Your task to perform on an android device: open a bookmark in the chrome app Image 0: 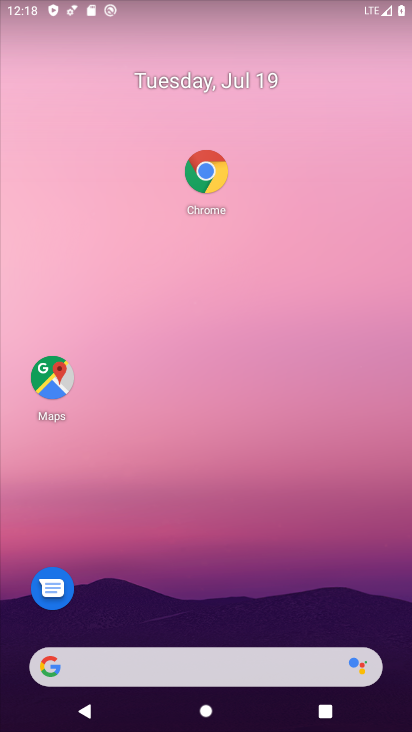
Step 0: click (210, 166)
Your task to perform on an android device: open a bookmark in the chrome app Image 1: 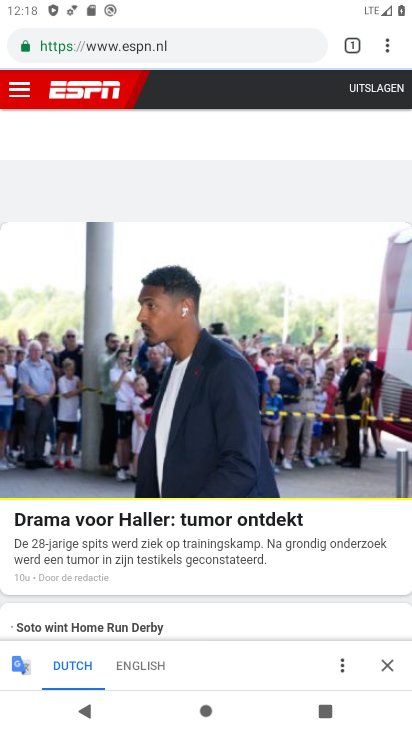
Step 1: click (395, 43)
Your task to perform on an android device: open a bookmark in the chrome app Image 2: 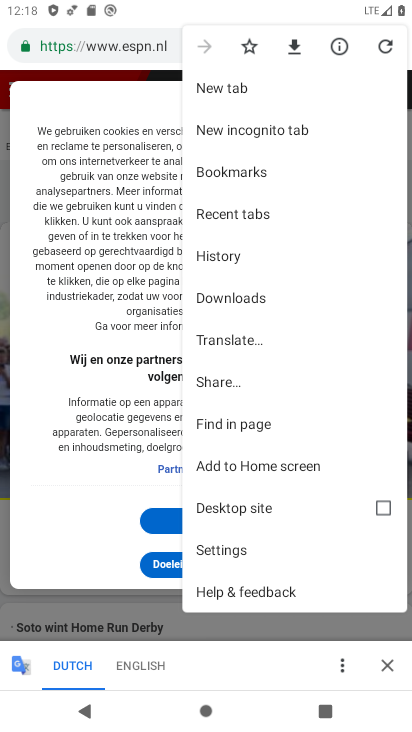
Step 2: drag from (239, 576) to (263, 330)
Your task to perform on an android device: open a bookmark in the chrome app Image 3: 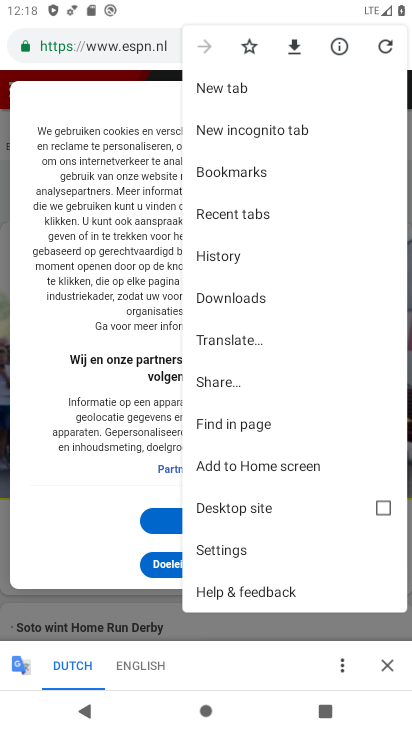
Step 3: click (283, 175)
Your task to perform on an android device: open a bookmark in the chrome app Image 4: 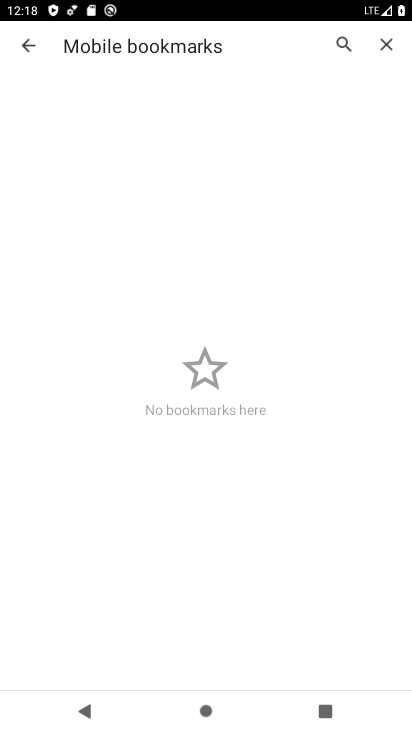
Step 4: task complete